Your task to perform on an android device: add a label to a message in the gmail app Image 0: 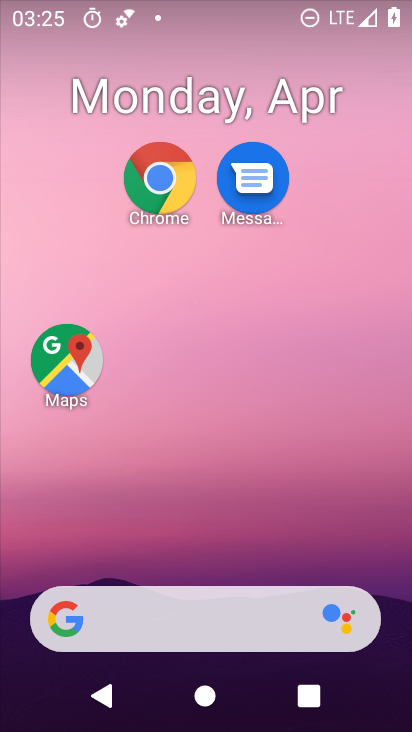
Step 0: drag from (231, 586) to (157, 42)
Your task to perform on an android device: add a label to a message in the gmail app Image 1: 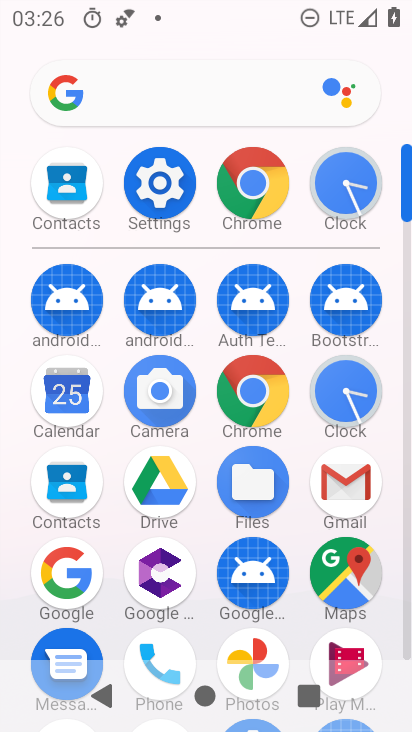
Step 1: click (331, 490)
Your task to perform on an android device: add a label to a message in the gmail app Image 2: 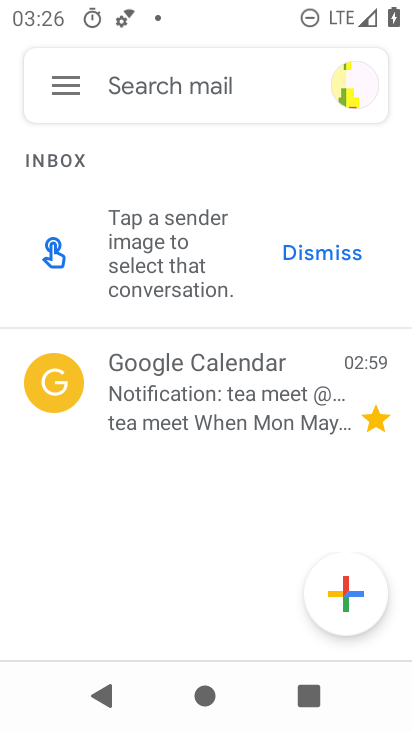
Step 2: click (285, 399)
Your task to perform on an android device: add a label to a message in the gmail app Image 3: 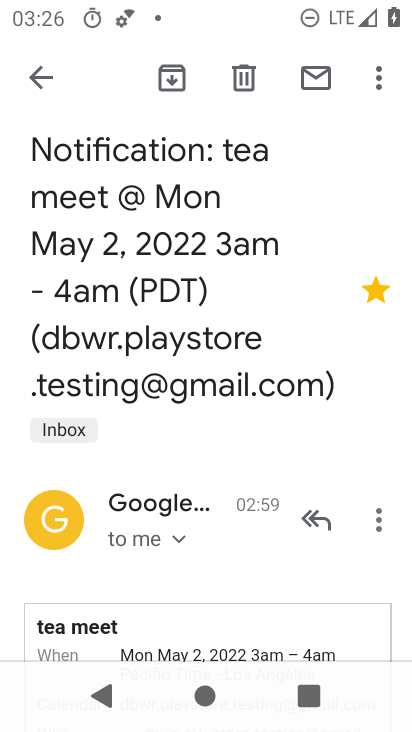
Step 3: click (375, 70)
Your task to perform on an android device: add a label to a message in the gmail app Image 4: 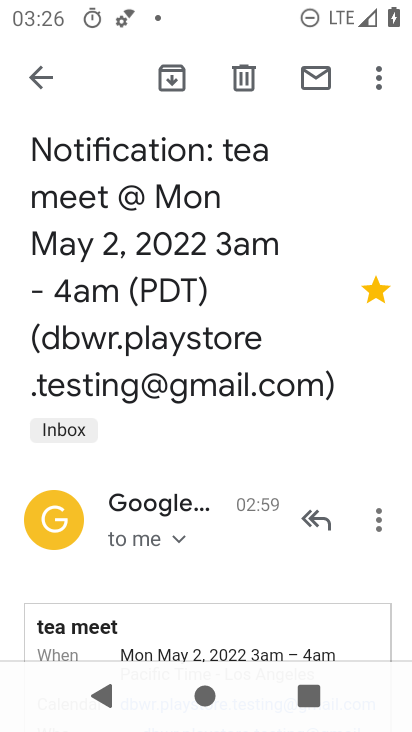
Step 4: click (362, 232)
Your task to perform on an android device: add a label to a message in the gmail app Image 5: 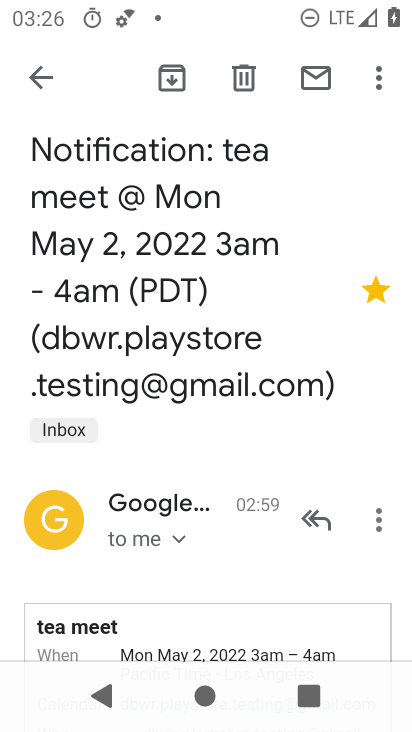
Step 5: click (46, 432)
Your task to perform on an android device: add a label to a message in the gmail app Image 6: 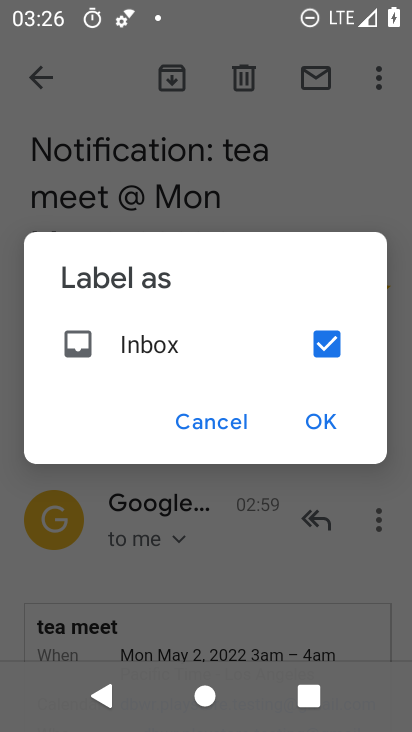
Step 6: click (324, 420)
Your task to perform on an android device: add a label to a message in the gmail app Image 7: 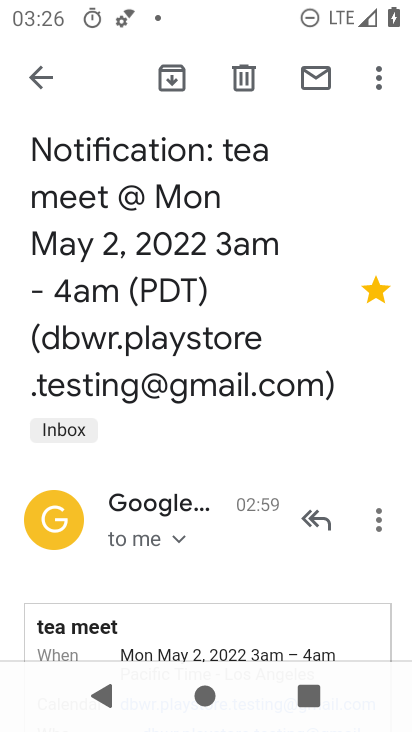
Step 7: task complete